Your task to perform on an android device: turn on wifi Image 0: 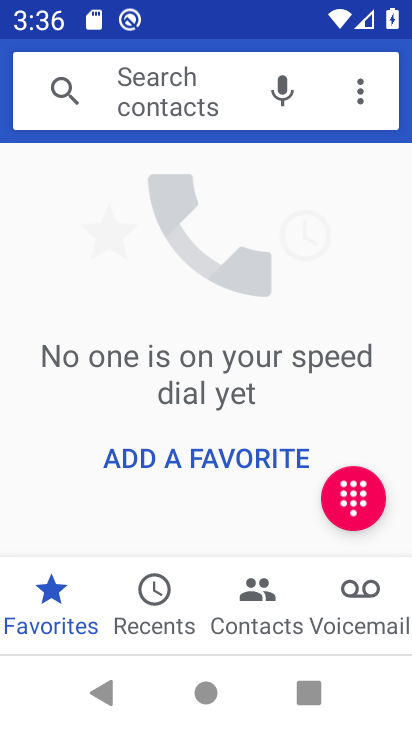
Step 0: press home button
Your task to perform on an android device: turn on wifi Image 1: 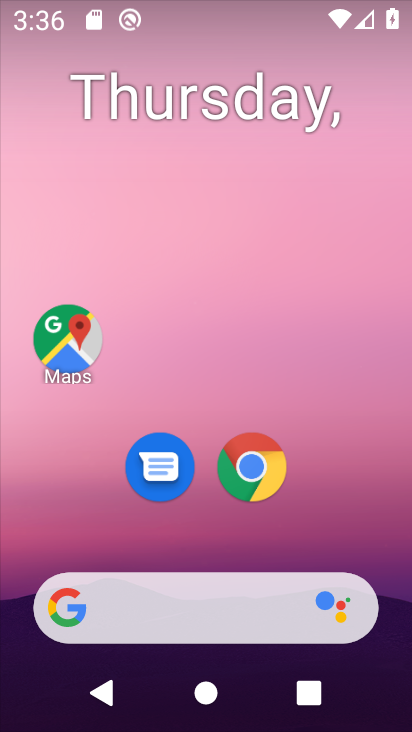
Step 1: drag from (192, 504) to (302, 3)
Your task to perform on an android device: turn on wifi Image 2: 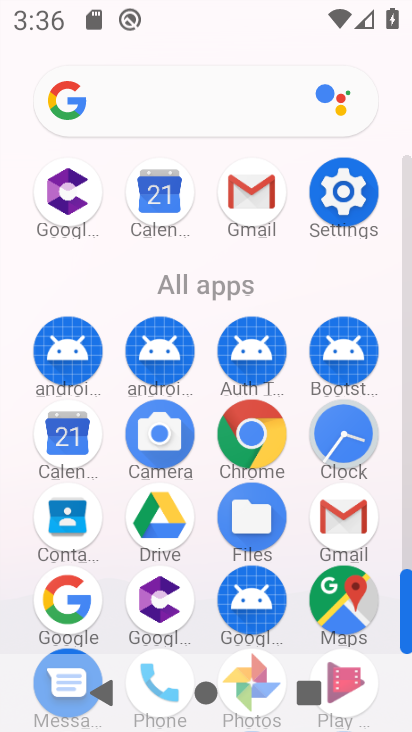
Step 2: click (354, 214)
Your task to perform on an android device: turn on wifi Image 3: 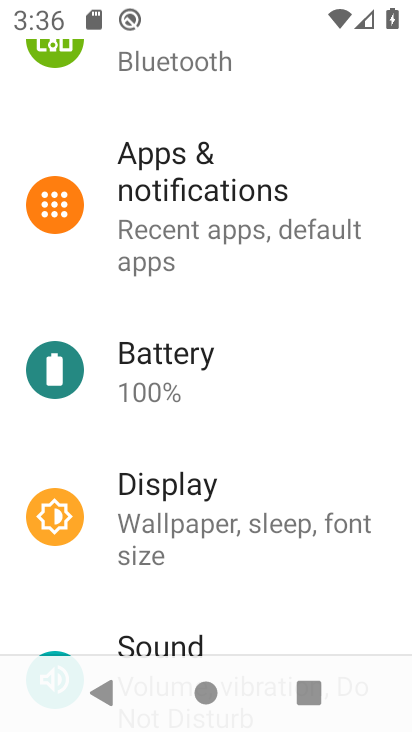
Step 3: drag from (264, 204) to (247, 575)
Your task to perform on an android device: turn on wifi Image 4: 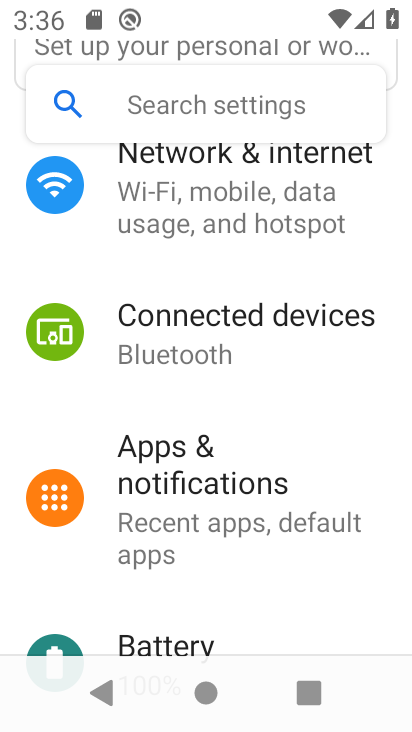
Step 4: drag from (263, 292) to (206, 579)
Your task to perform on an android device: turn on wifi Image 5: 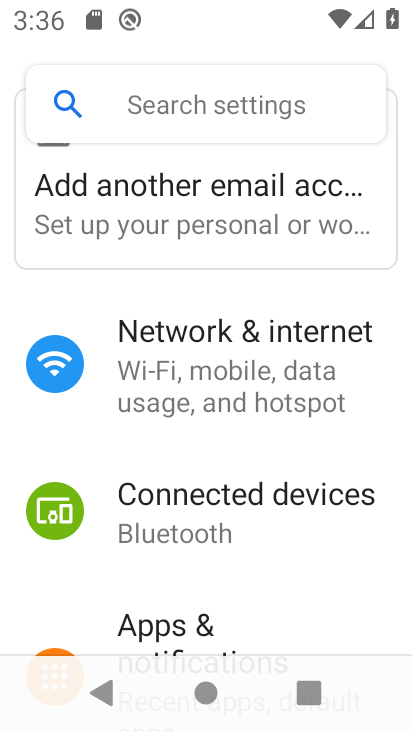
Step 5: click (217, 406)
Your task to perform on an android device: turn on wifi Image 6: 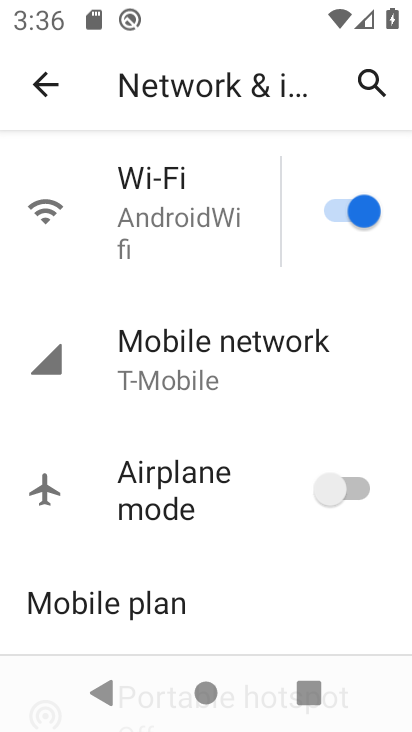
Step 6: click (183, 224)
Your task to perform on an android device: turn on wifi Image 7: 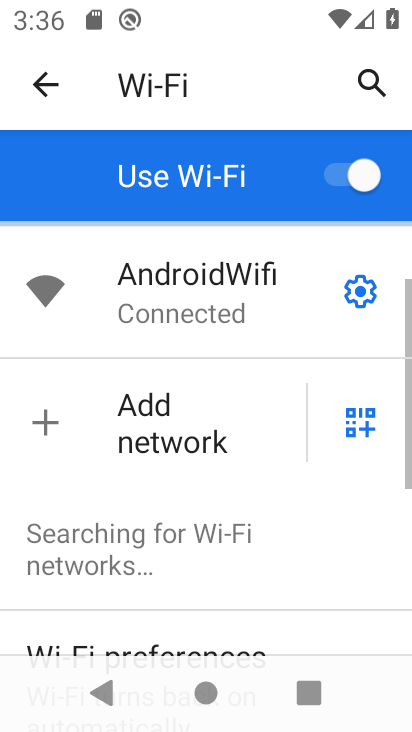
Step 7: task complete